Your task to perform on an android device: turn off improve location accuracy Image 0: 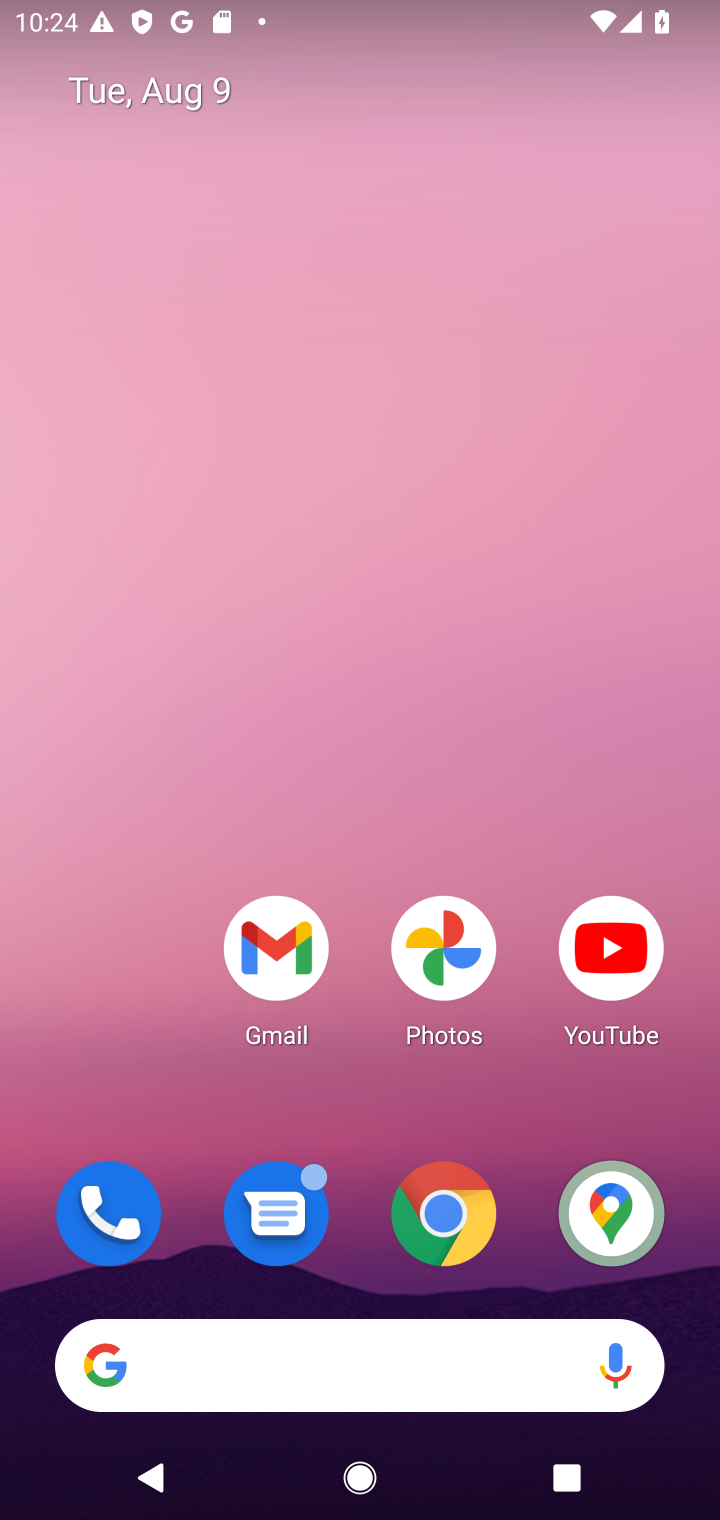
Step 0: drag from (406, 1289) to (401, 106)
Your task to perform on an android device: turn off improve location accuracy Image 1: 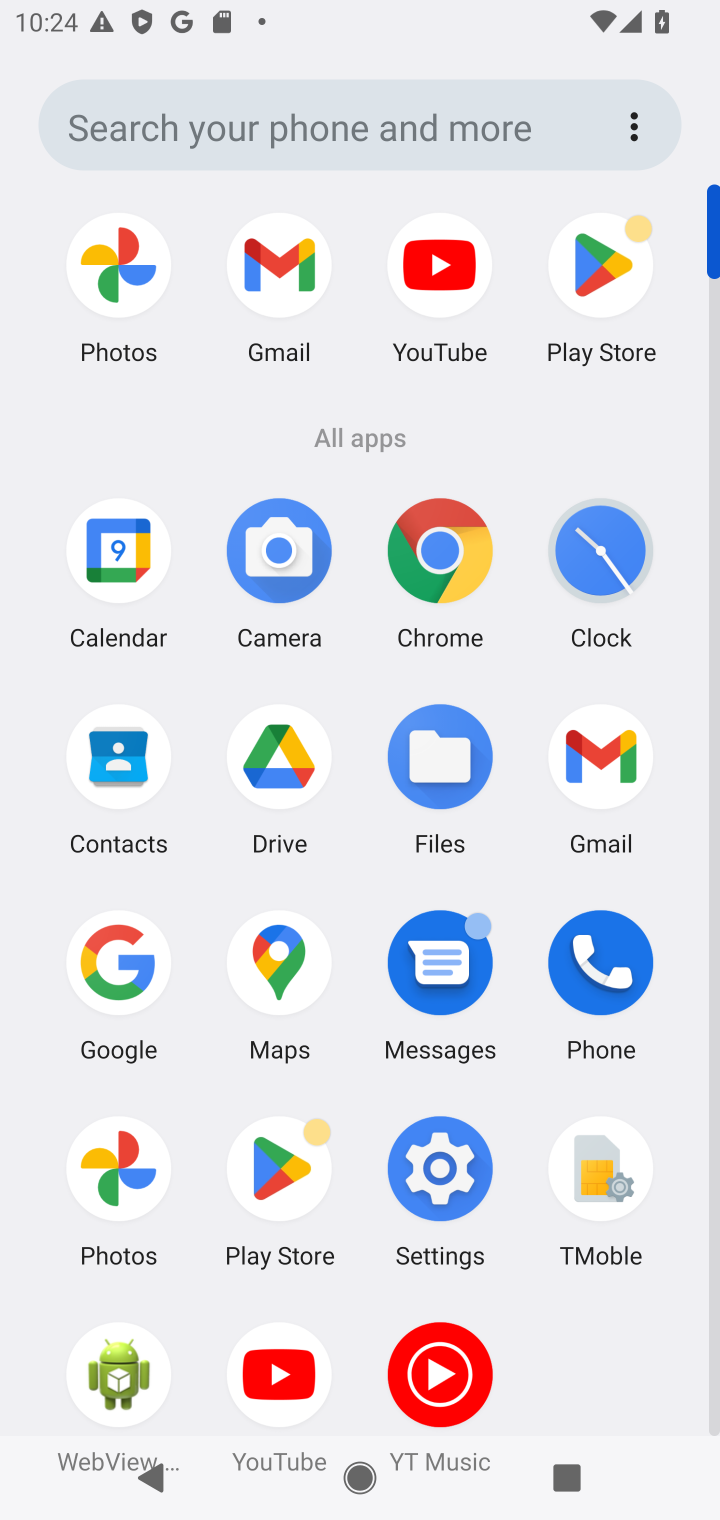
Step 1: click (432, 1183)
Your task to perform on an android device: turn off improve location accuracy Image 2: 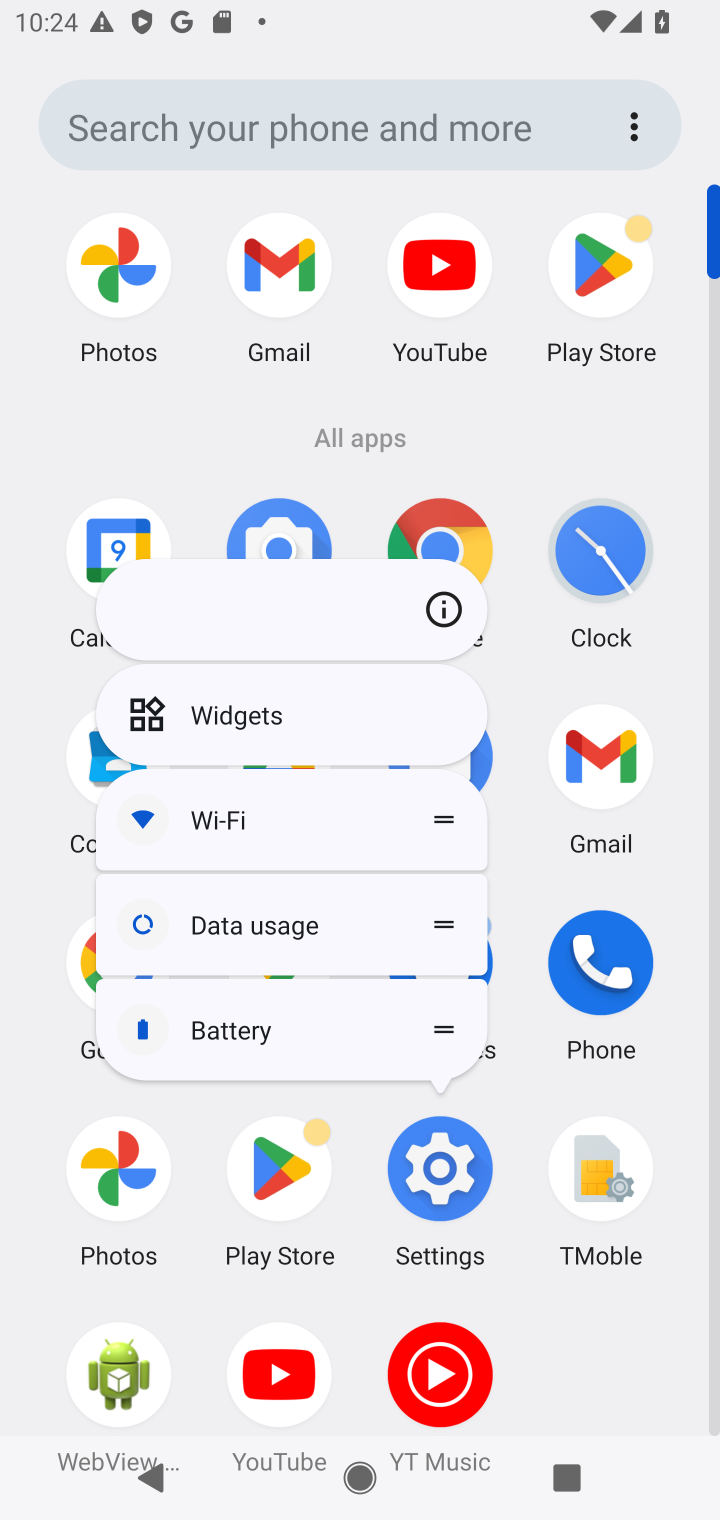
Step 2: click (432, 1183)
Your task to perform on an android device: turn off improve location accuracy Image 3: 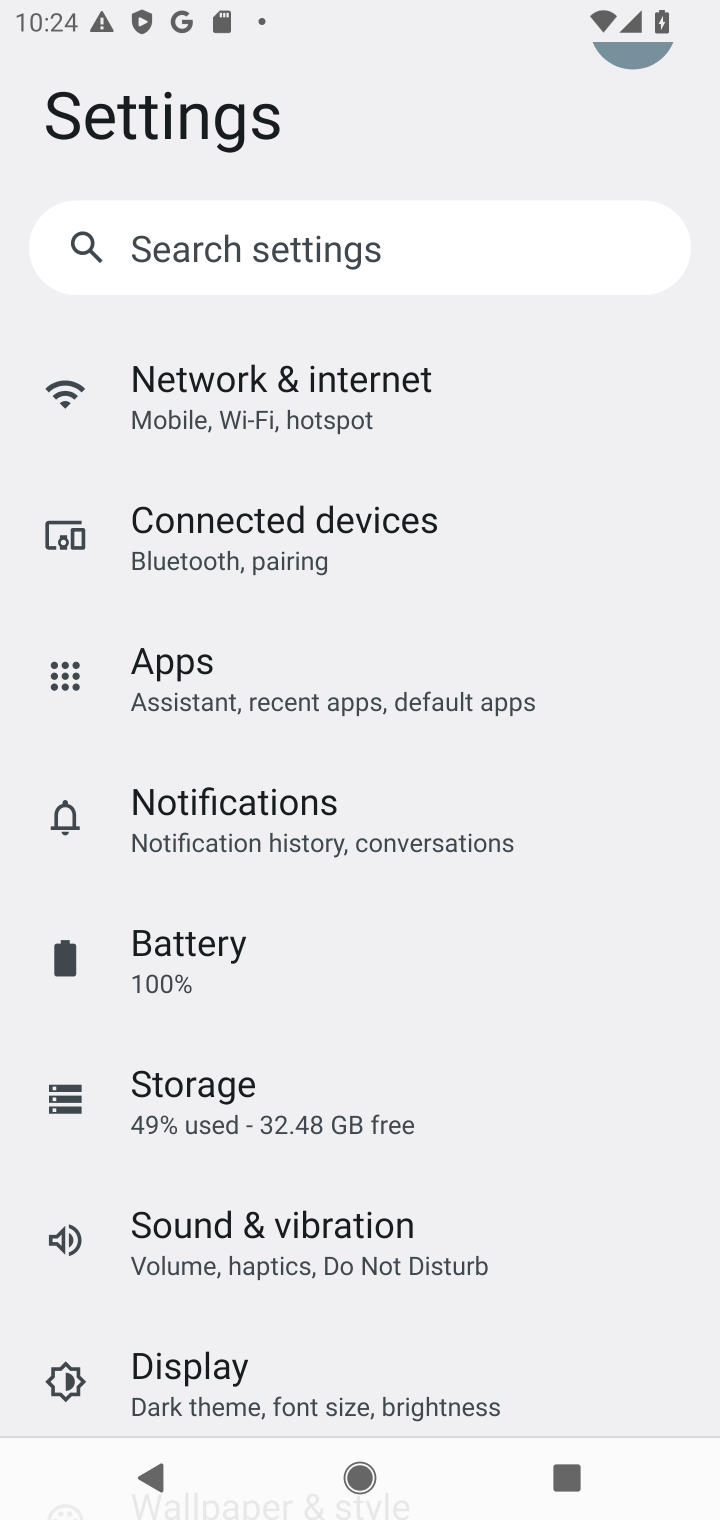
Step 3: drag from (348, 1284) to (325, 349)
Your task to perform on an android device: turn off improve location accuracy Image 4: 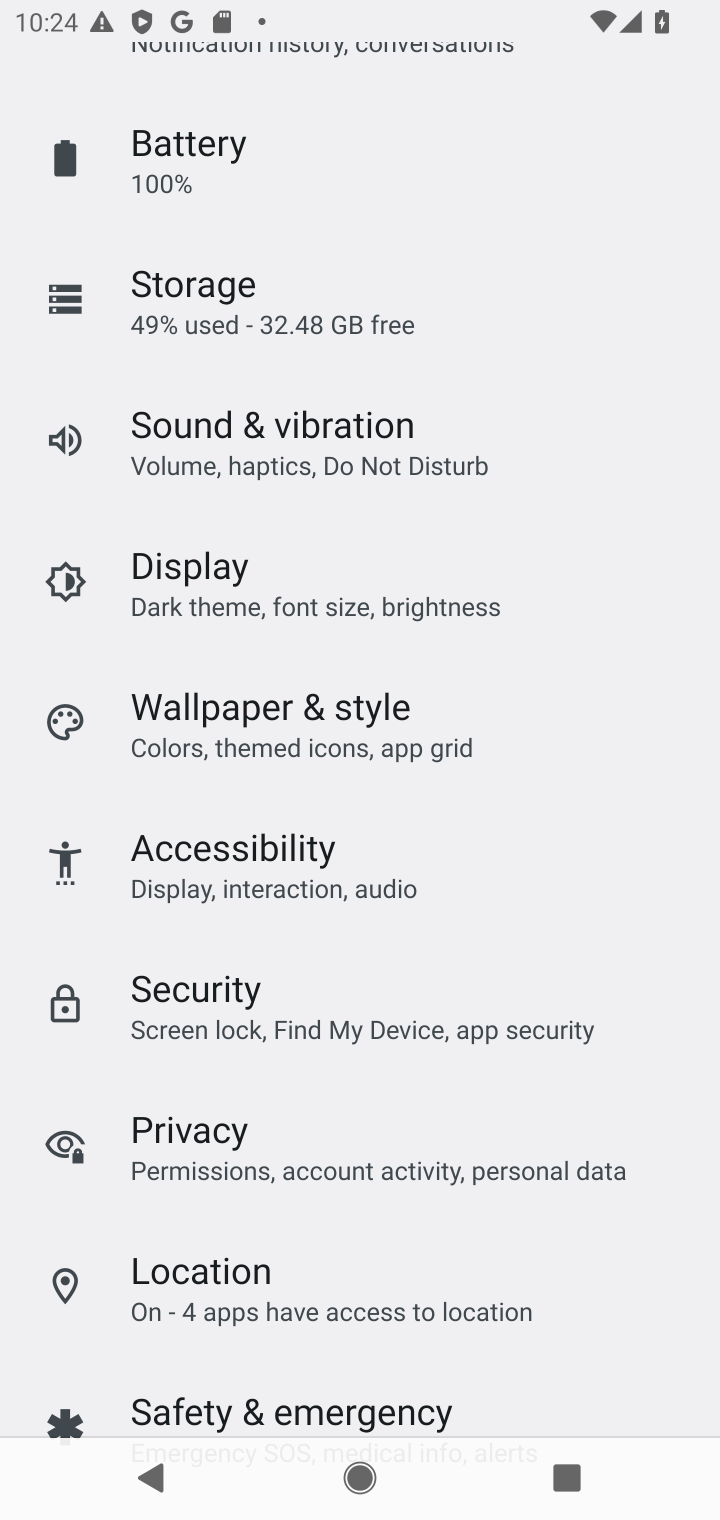
Step 4: click (272, 1321)
Your task to perform on an android device: turn off improve location accuracy Image 5: 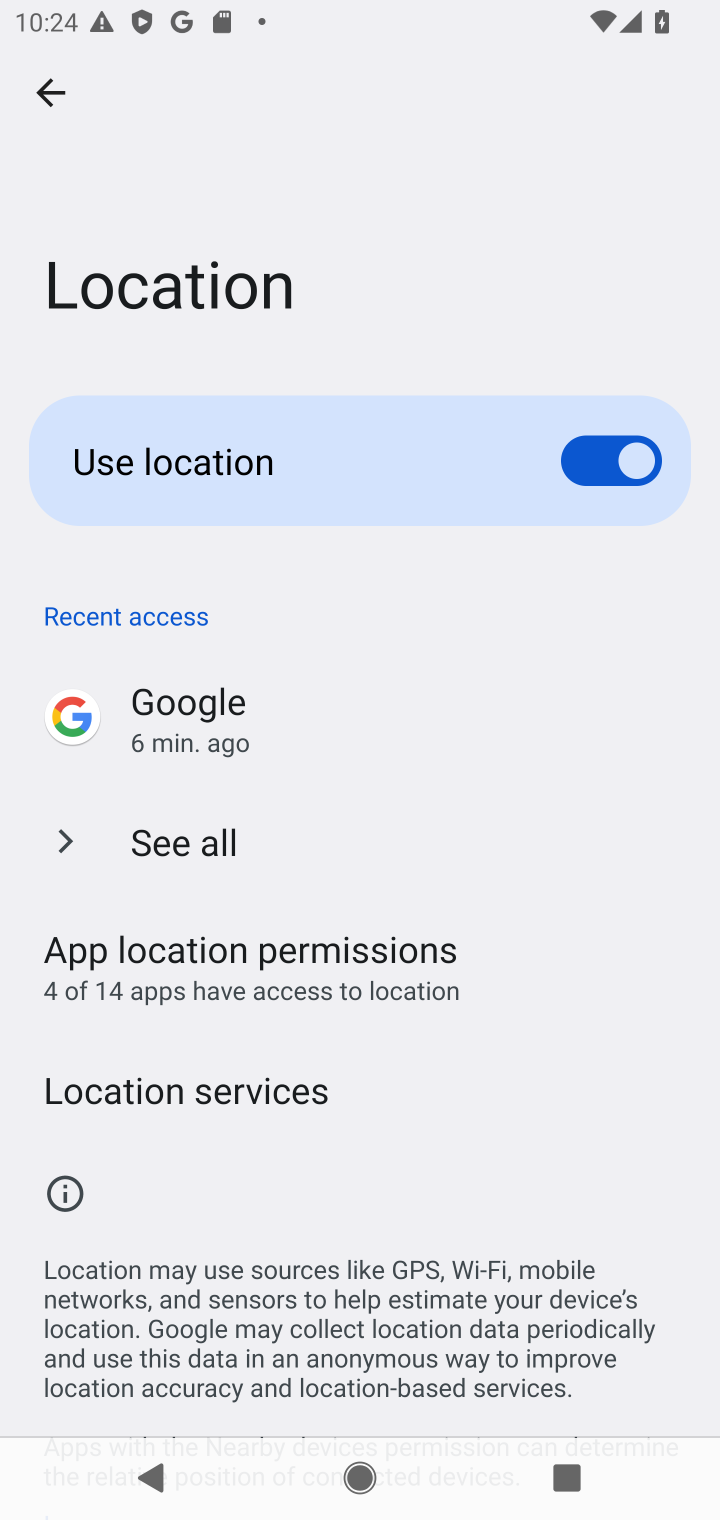
Step 5: click (159, 1089)
Your task to perform on an android device: turn off improve location accuracy Image 6: 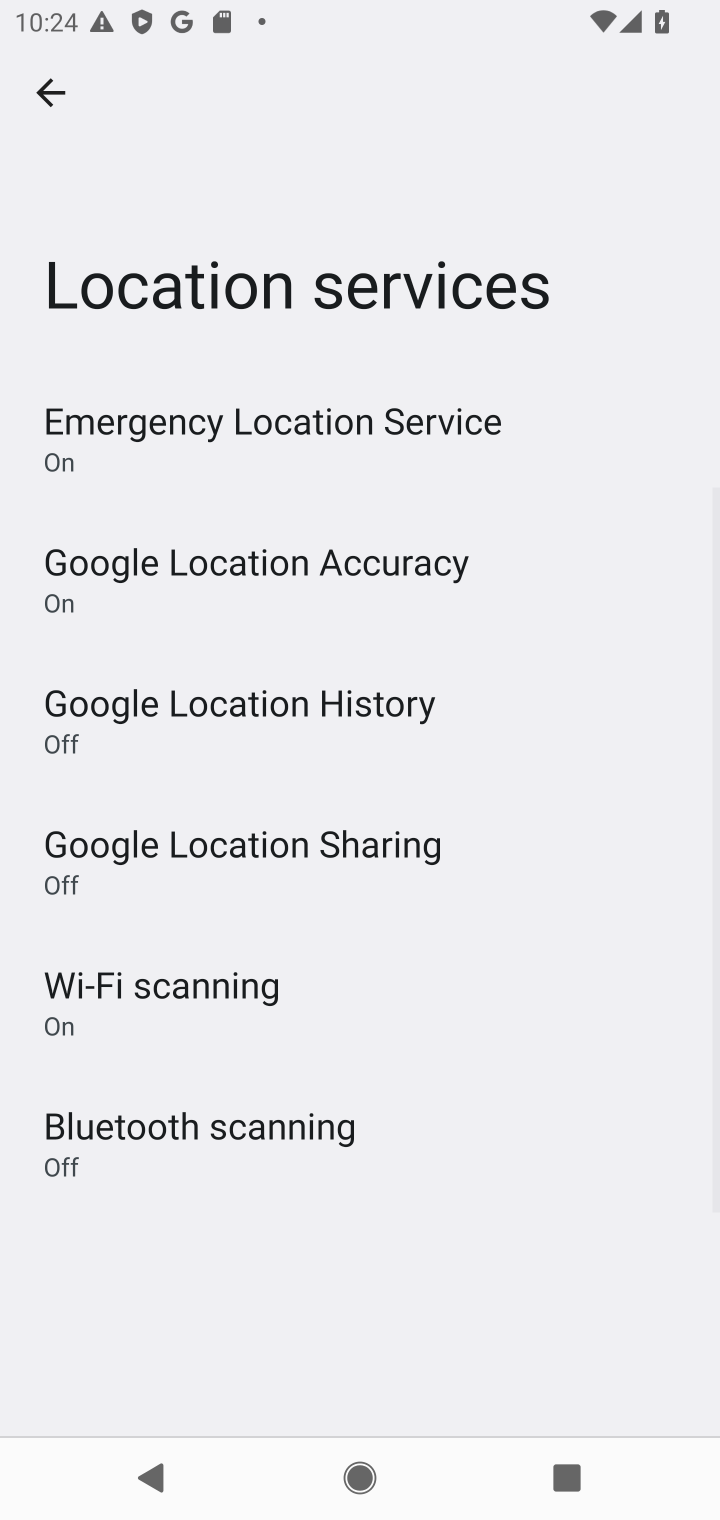
Step 6: click (292, 593)
Your task to perform on an android device: turn off improve location accuracy Image 7: 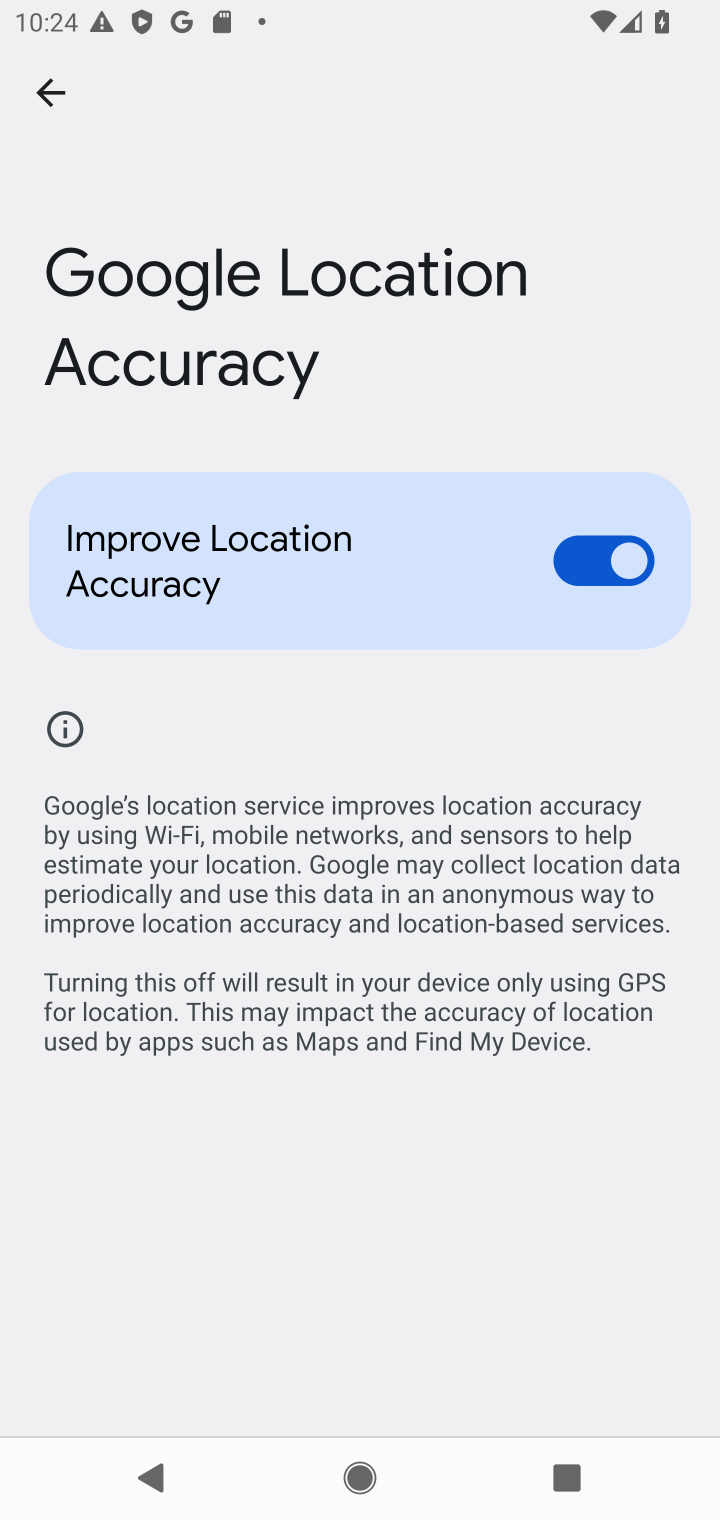
Step 7: click (570, 542)
Your task to perform on an android device: turn off improve location accuracy Image 8: 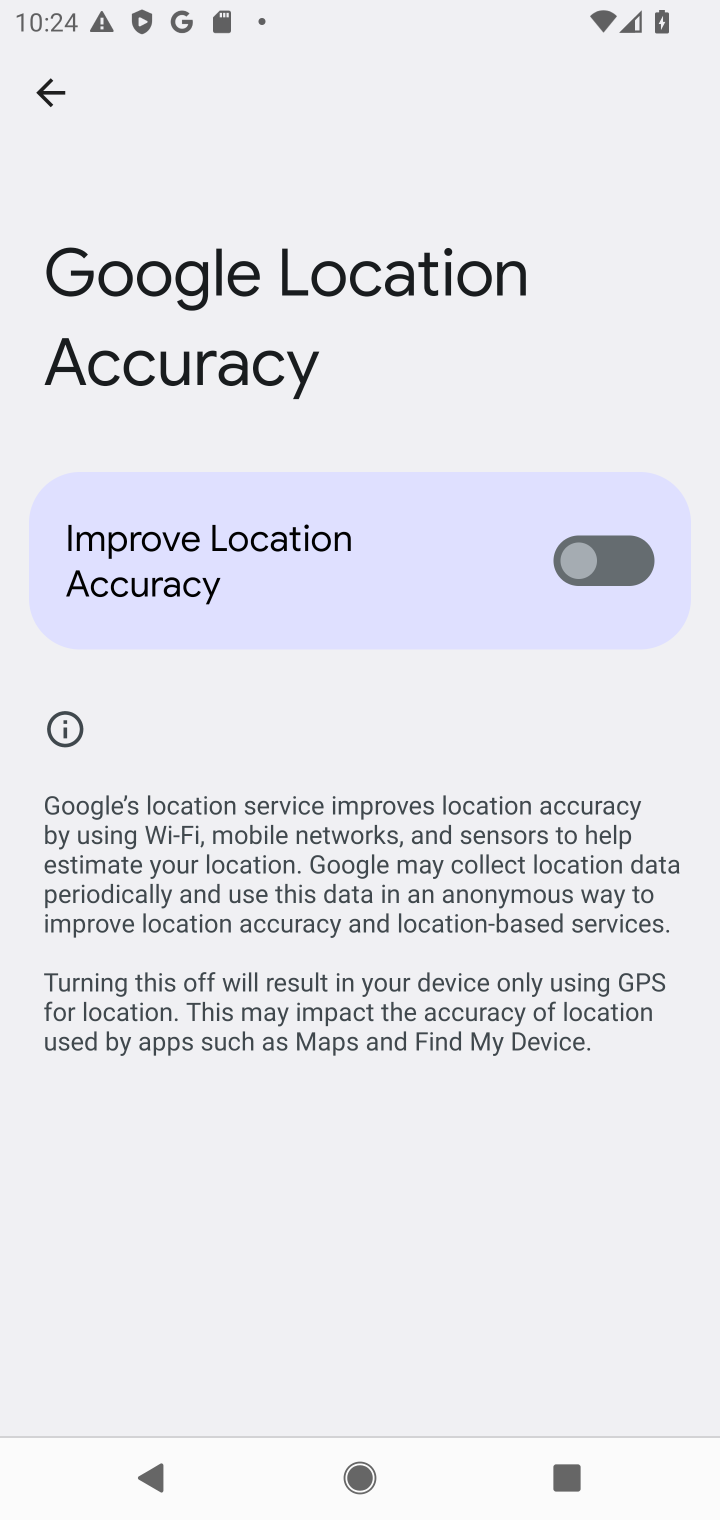
Step 8: task complete